Your task to perform on an android device: Open the web browser Image 0: 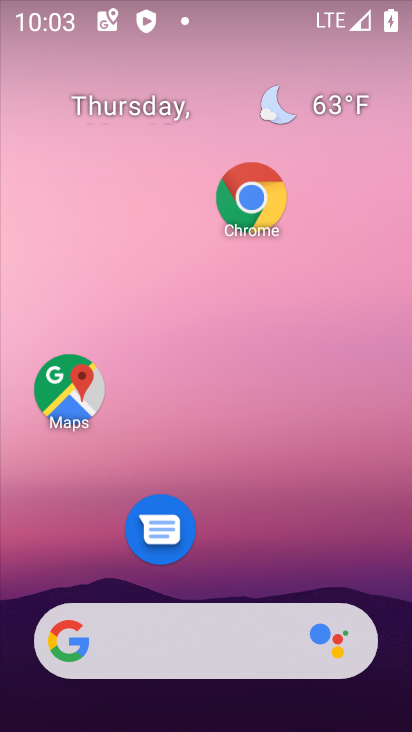
Step 0: drag from (258, 443) to (253, 63)
Your task to perform on an android device: Open the web browser Image 1: 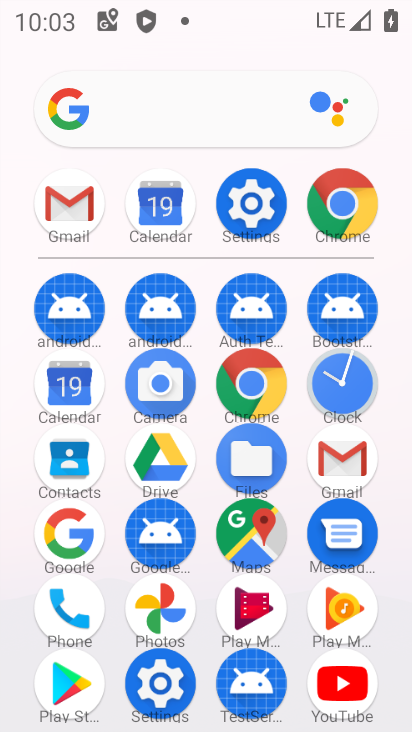
Step 1: click (352, 222)
Your task to perform on an android device: Open the web browser Image 2: 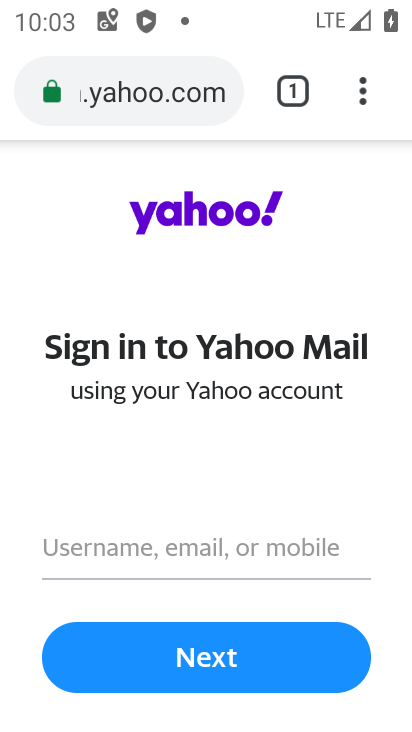
Step 2: task complete